Your task to perform on an android device: toggle pop-ups in chrome Image 0: 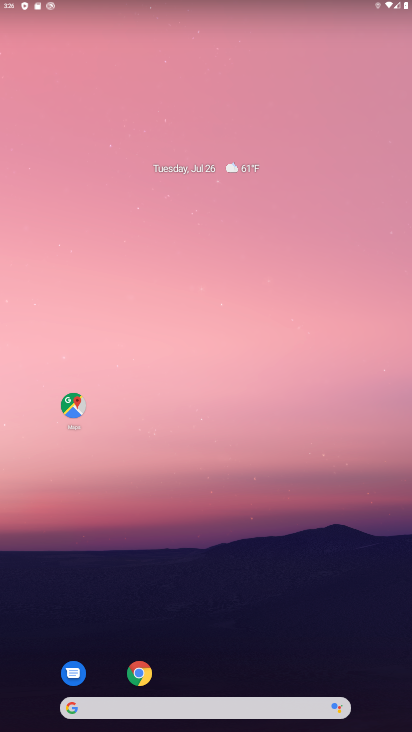
Step 0: click (136, 666)
Your task to perform on an android device: toggle pop-ups in chrome Image 1: 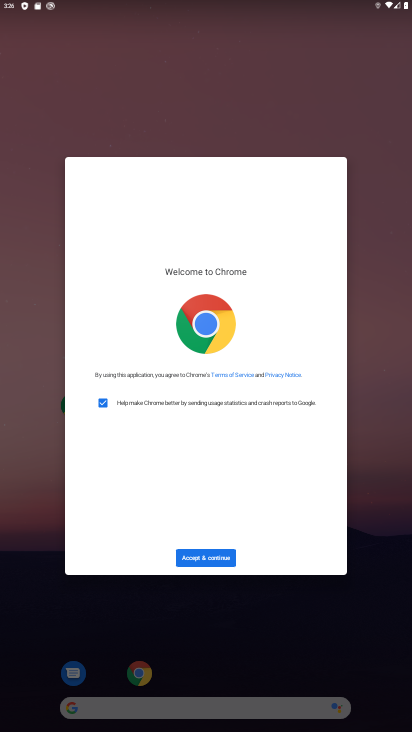
Step 1: click (201, 554)
Your task to perform on an android device: toggle pop-ups in chrome Image 2: 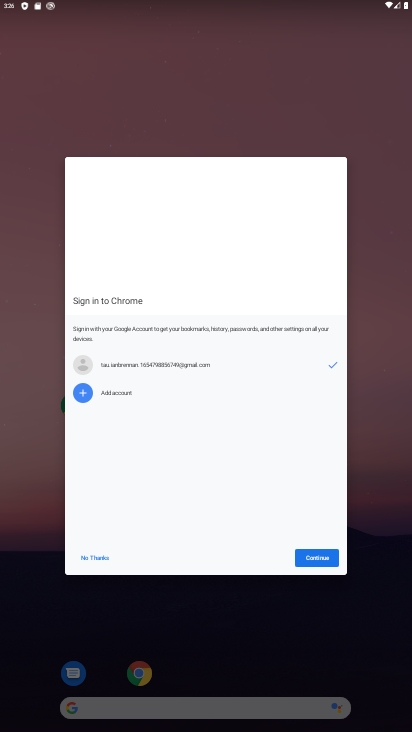
Step 2: click (320, 557)
Your task to perform on an android device: toggle pop-ups in chrome Image 3: 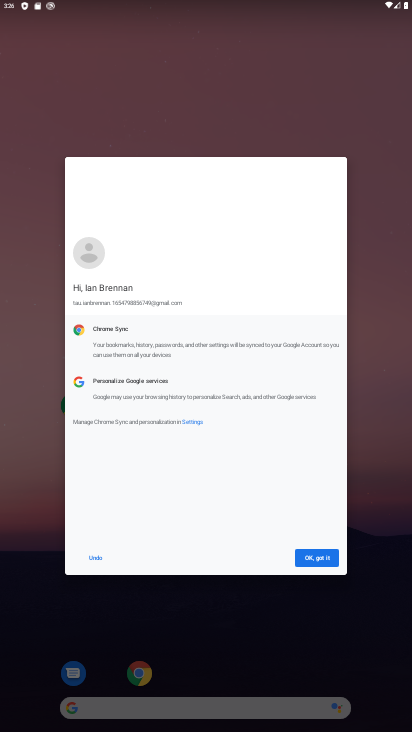
Step 3: click (320, 556)
Your task to perform on an android device: toggle pop-ups in chrome Image 4: 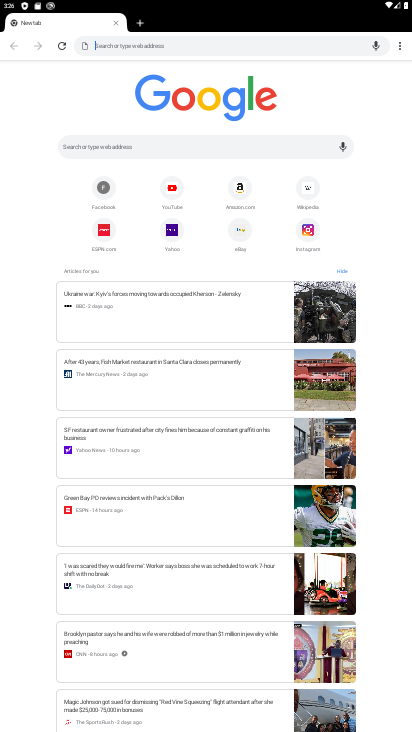
Step 4: click (398, 43)
Your task to perform on an android device: toggle pop-ups in chrome Image 5: 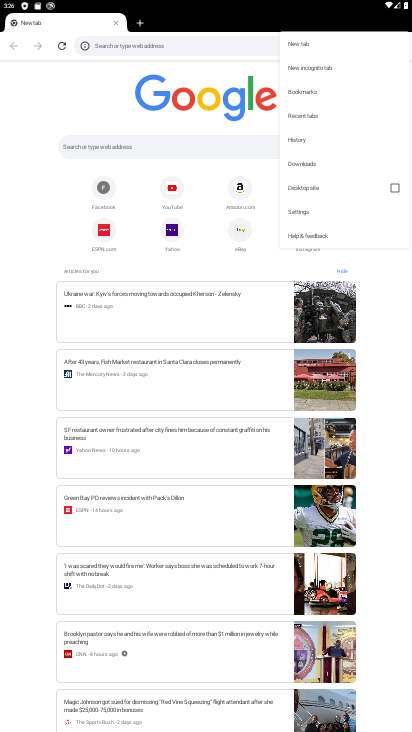
Step 5: click (311, 209)
Your task to perform on an android device: toggle pop-ups in chrome Image 6: 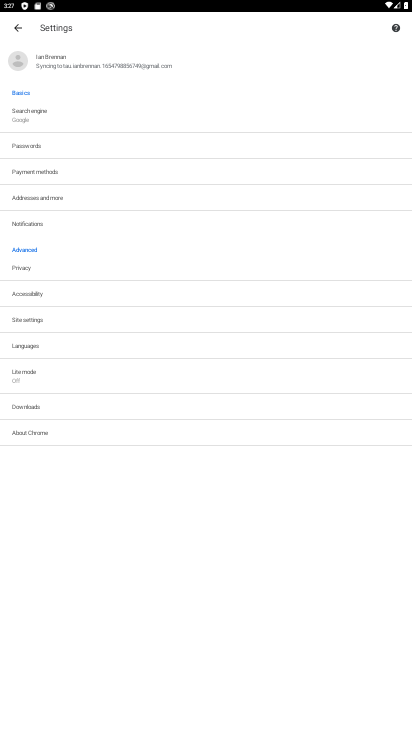
Step 6: click (57, 320)
Your task to perform on an android device: toggle pop-ups in chrome Image 7: 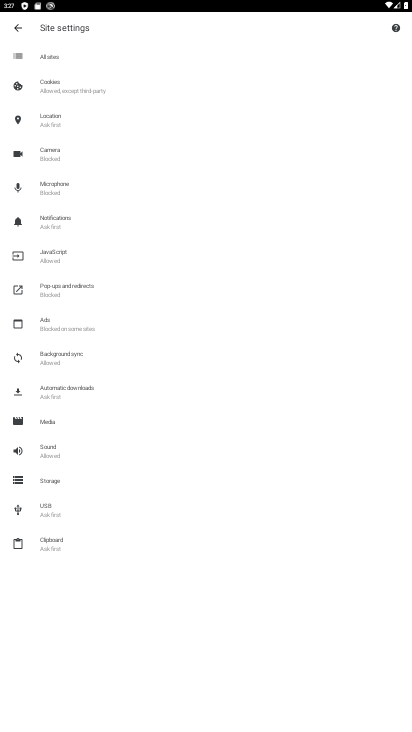
Step 7: click (94, 285)
Your task to perform on an android device: toggle pop-ups in chrome Image 8: 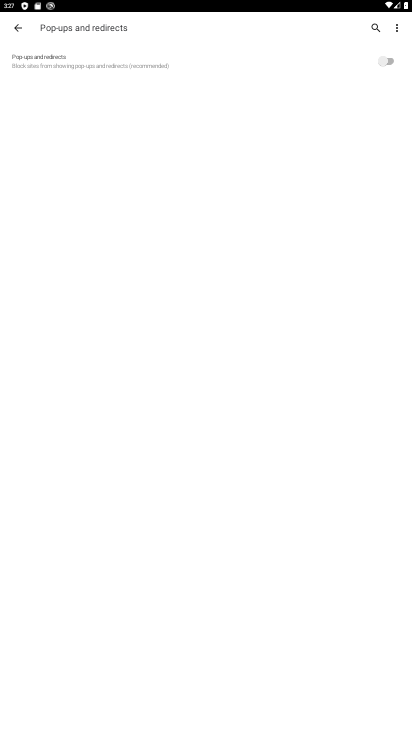
Step 8: click (388, 53)
Your task to perform on an android device: toggle pop-ups in chrome Image 9: 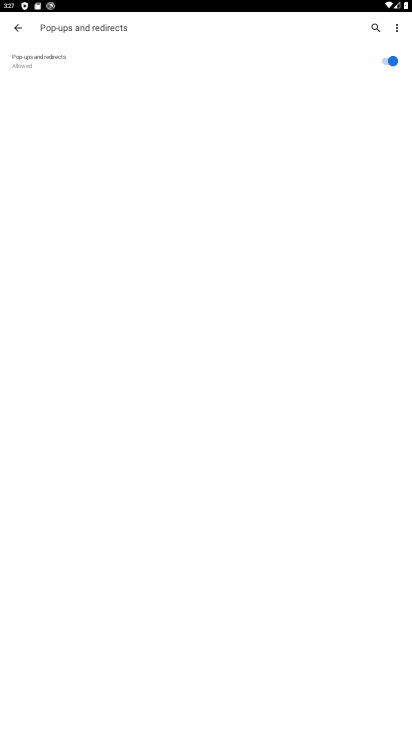
Step 9: task complete